Your task to perform on an android device: Open display settings Image 0: 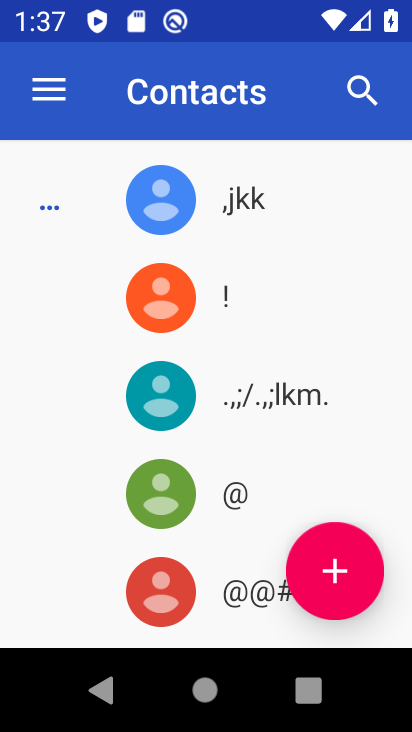
Step 0: press home button
Your task to perform on an android device: Open display settings Image 1: 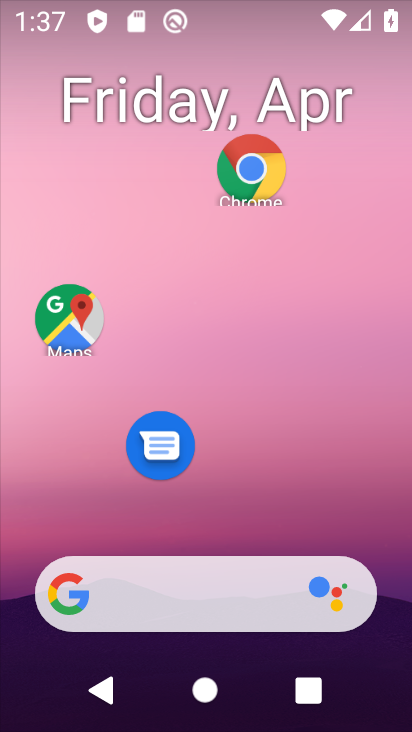
Step 1: drag from (243, 614) to (253, 102)
Your task to perform on an android device: Open display settings Image 2: 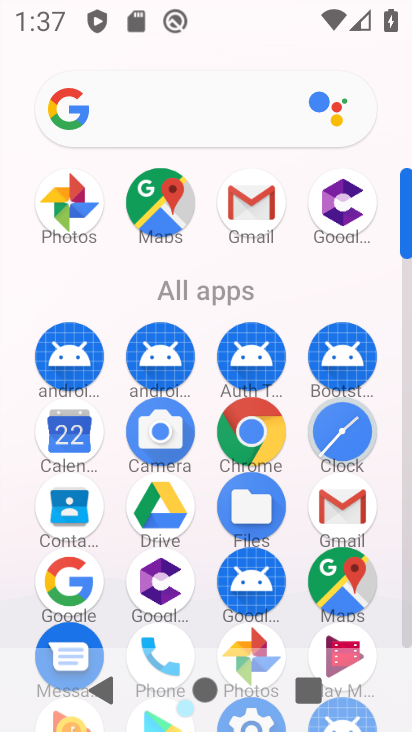
Step 2: drag from (284, 561) to (286, 252)
Your task to perform on an android device: Open display settings Image 3: 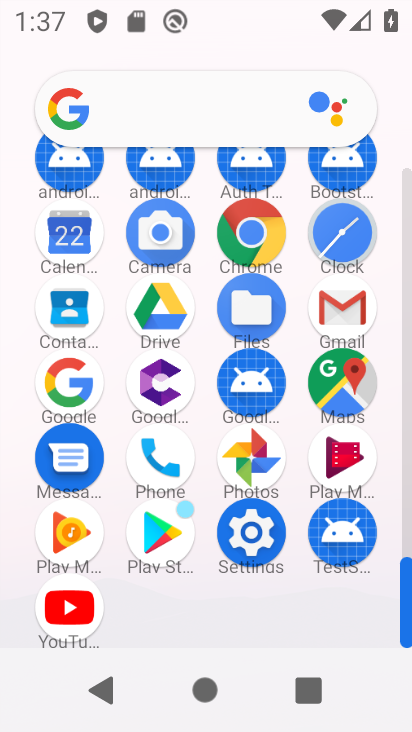
Step 3: click (243, 539)
Your task to perform on an android device: Open display settings Image 4: 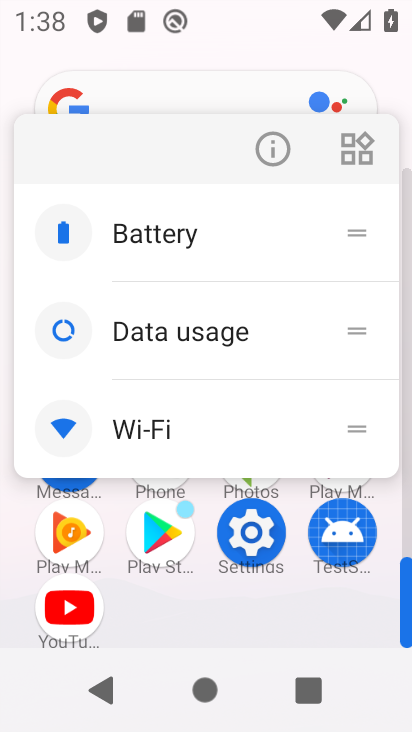
Step 4: click (248, 536)
Your task to perform on an android device: Open display settings Image 5: 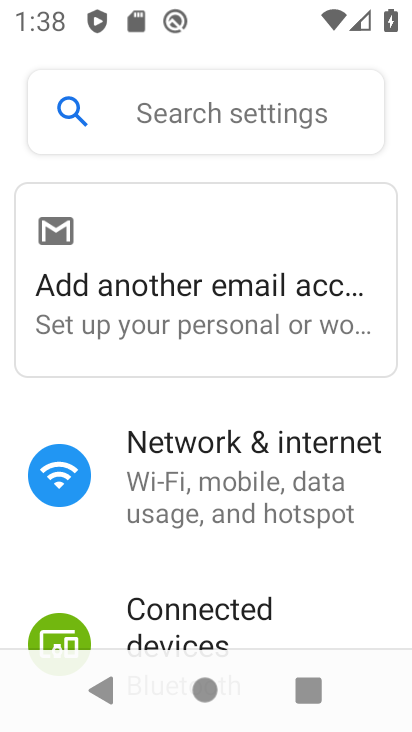
Step 5: drag from (268, 490) to (262, 64)
Your task to perform on an android device: Open display settings Image 6: 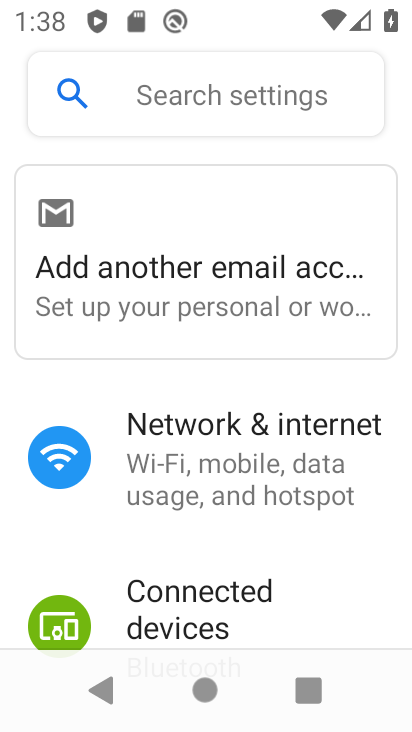
Step 6: drag from (273, 620) to (306, 36)
Your task to perform on an android device: Open display settings Image 7: 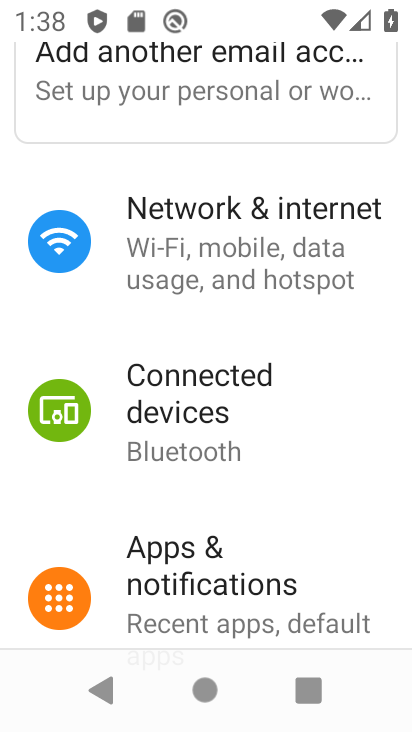
Step 7: drag from (270, 585) to (286, 267)
Your task to perform on an android device: Open display settings Image 8: 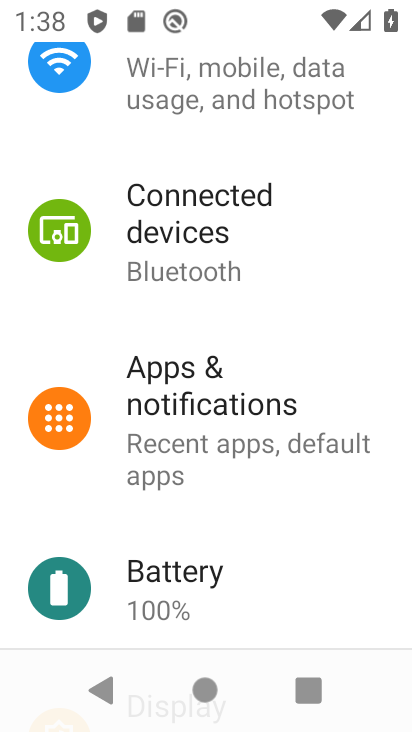
Step 8: drag from (261, 615) to (251, 398)
Your task to perform on an android device: Open display settings Image 9: 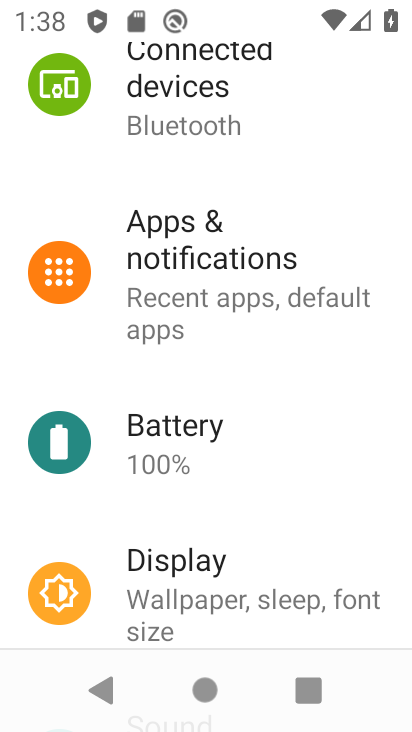
Step 9: click (231, 596)
Your task to perform on an android device: Open display settings Image 10: 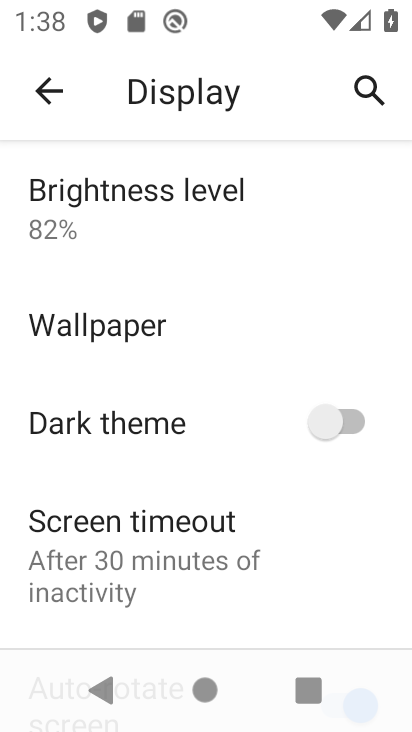
Step 10: task complete